Your task to perform on an android device: all mails in gmail Image 0: 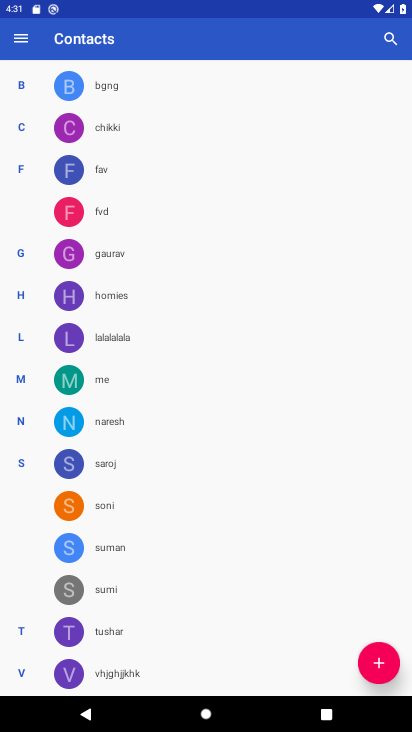
Step 0: press home button
Your task to perform on an android device: all mails in gmail Image 1: 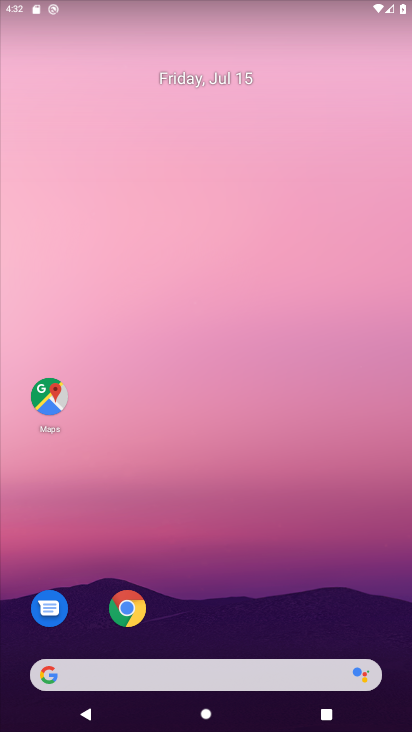
Step 1: drag from (190, 598) to (191, 96)
Your task to perform on an android device: all mails in gmail Image 2: 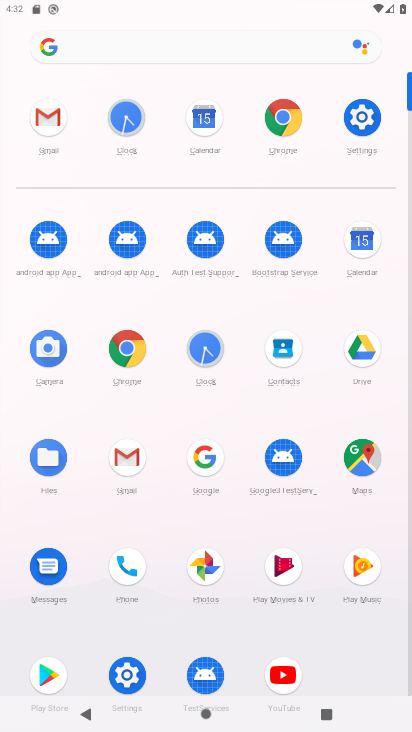
Step 2: click (119, 469)
Your task to perform on an android device: all mails in gmail Image 3: 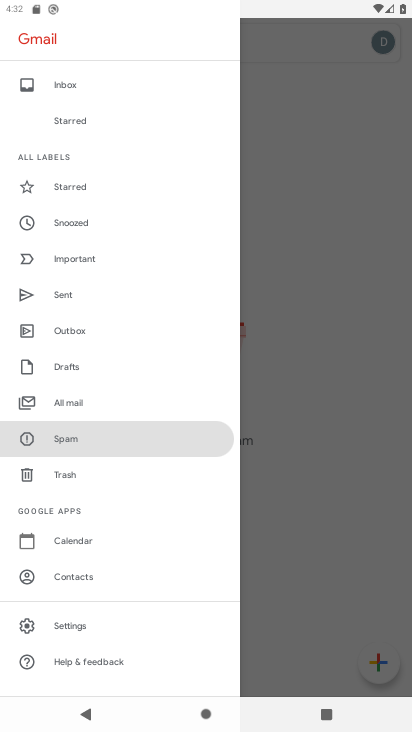
Step 3: click (69, 404)
Your task to perform on an android device: all mails in gmail Image 4: 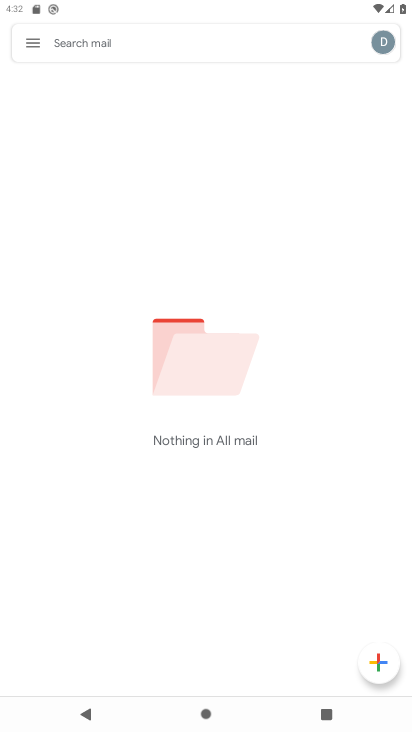
Step 4: task complete